Your task to perform on an android device: Search for sushi restaurants on Maps Image 0: 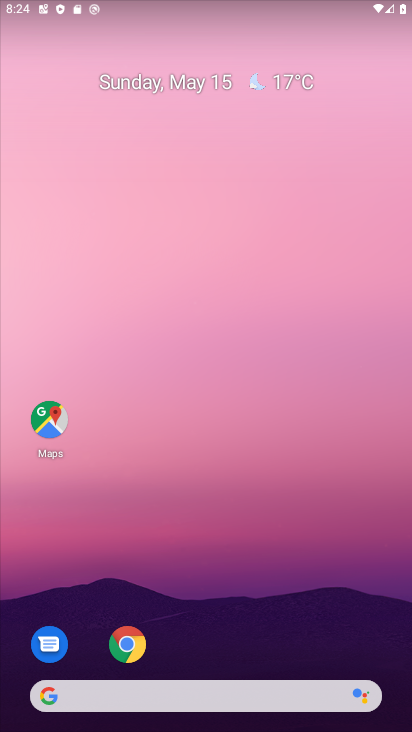
Step 0: drag from (282, 706) to (242, 186)
Your task to perform on an android device: Search for sushi restaurants on Maps Image 1: 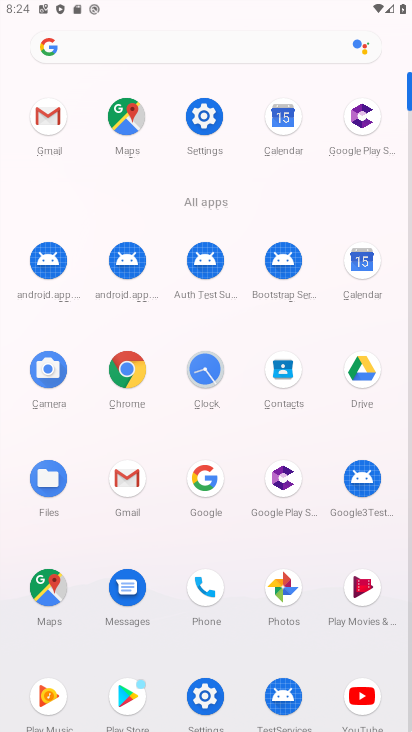
Step 1: click (117, 92)
Your task to perform on an android device: Search for sushi restaurants on Maps Image 2: 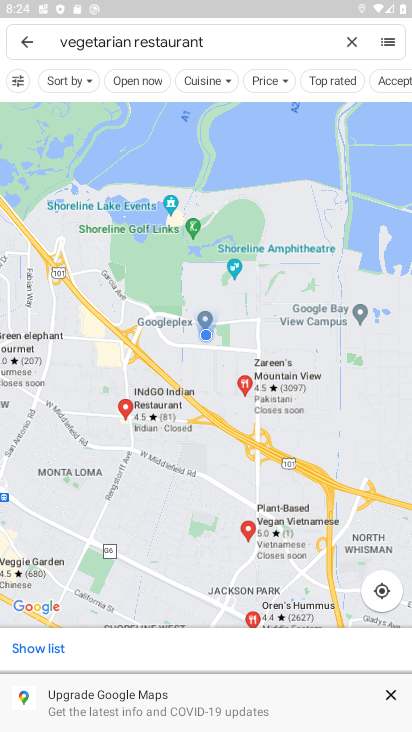
Step 2: click (25, 49)
Your task to perform on an android device: Search for sushi restaurants on Maps Image 3: 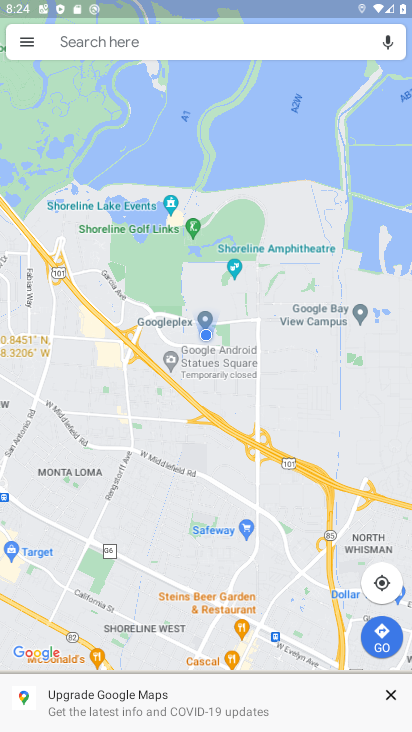
Step 3: click (110, 38)
Your task to perform on an android device: Search for sushi restaurants on Maps Image 4: 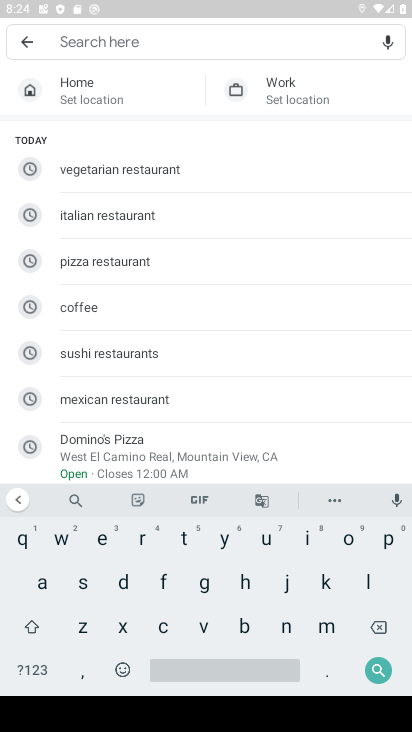
Step 4: click (77, 584)
Your task to perform on an android device: Search for sushi restaurants on Maps Image 5: 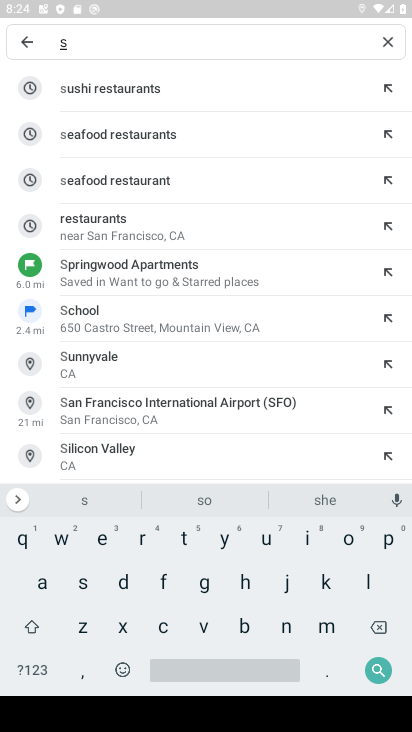
Step 5: click (150, 96)
Your task to perform on an android device: Search for sushi restaurants on Maps Image 6: 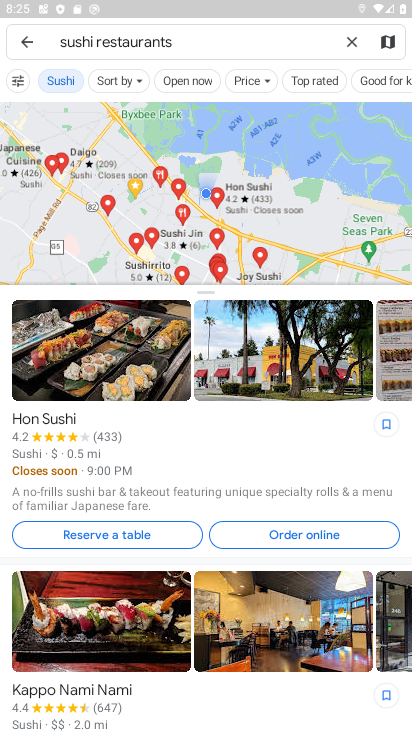
Step 6: click (93, 181)
Your task to perform on an android device: Search for sushi restaurants on Maps Image 7: 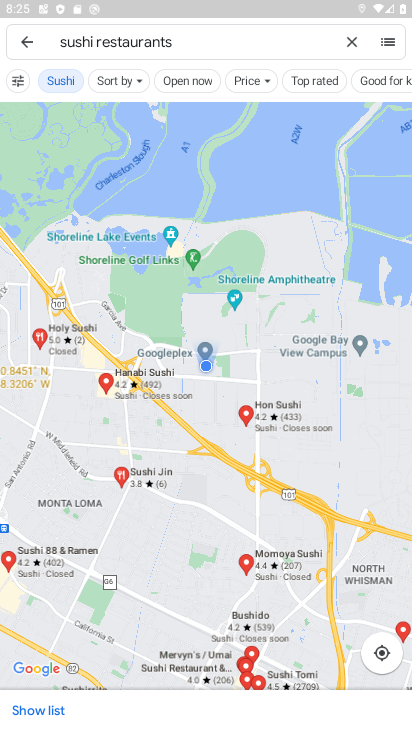
Step 7: task complete